Your task to perform on an android device: Go to network settings Image 0: 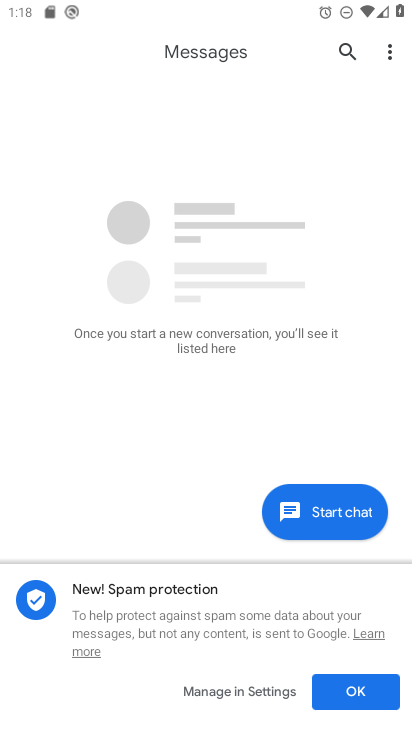
Step 0: press home button
Your task to perform on an android device: Go to network settings Image 1: 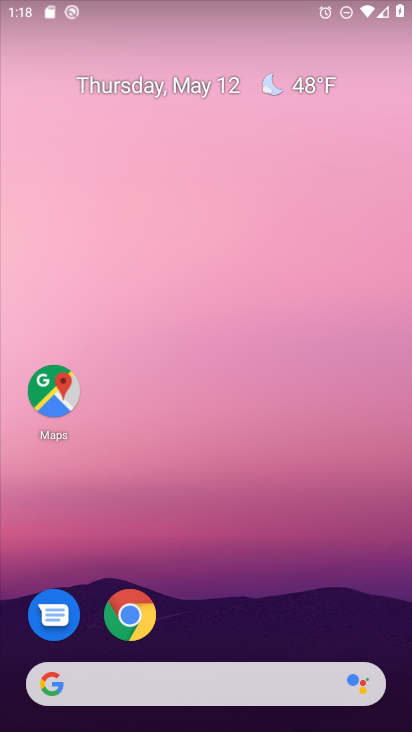
Step 1: drag from (237, 613) to (301, 3)
Your task to perform on an android device: Go to network settings Image 2: 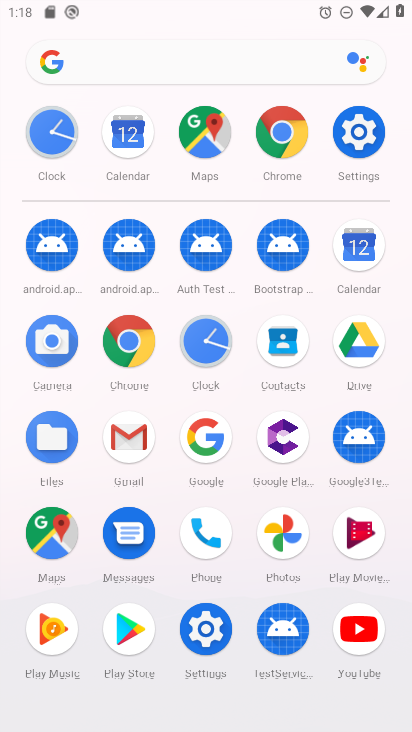
Step 2: click (357, 144)
Your task to perform on an android device: Go to network settings Image 3: 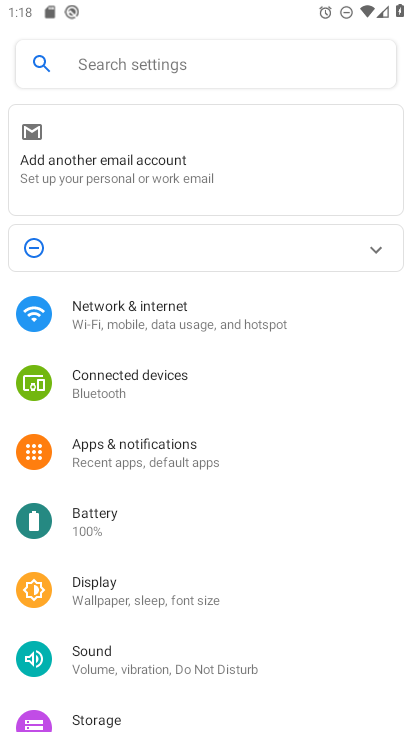
Step 3: click (160, 308)
Your task to perform on an android device: Go to network settings Image 4: 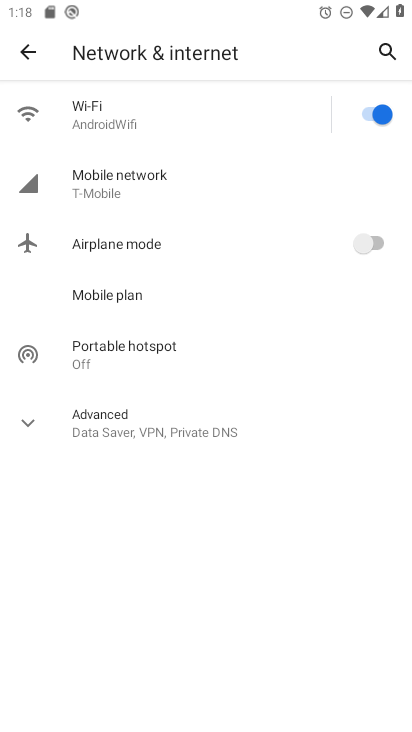
Step 4: task complete